Your task to perform on an android device: change the clock display to digital Image 0: 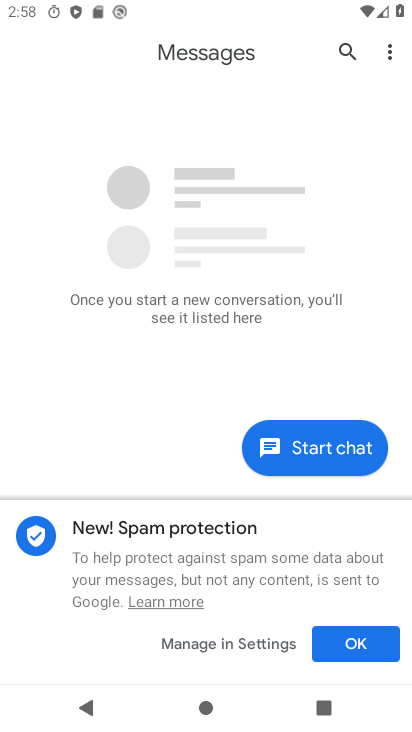
Step 0: press home button
Your task to perform on an android device: change the clock display to digital Image 1: 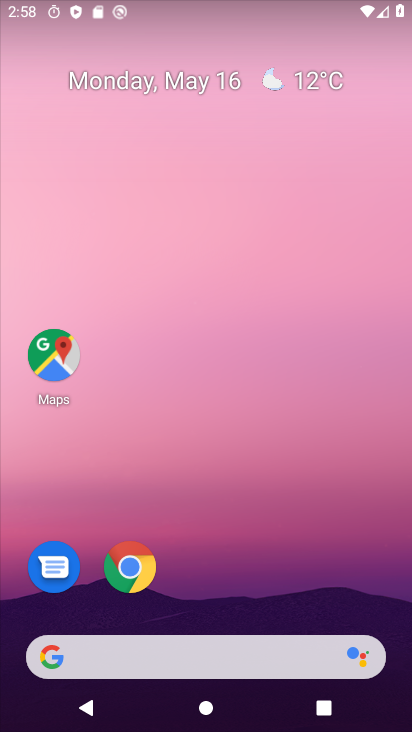
Step 1: drag from (208, 631) to (275, 102)
Your task to perform on an android device: change the clock display to digital Image 2: 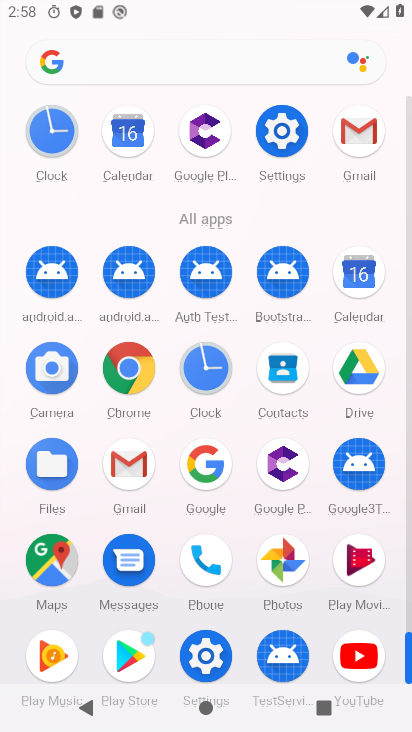
Step 2: click (204, 380)
Your task to perform on an android device: change the clock display to digital Image 3: 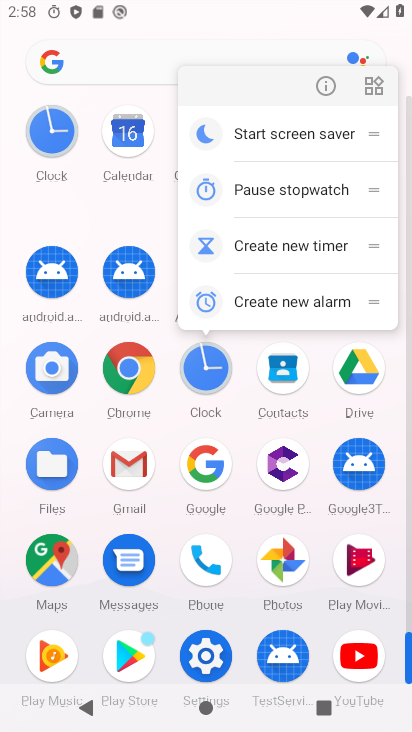
Step 3: click (204, 378)
Your task to perform on an android device: change the clock display to digital Image 4: 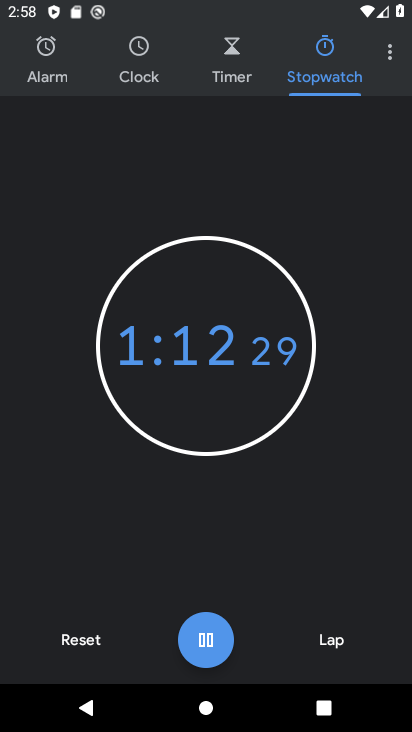
Step 4: click (380, 41)
Your task to perform on an android device: change the clock display to digital Image 5: 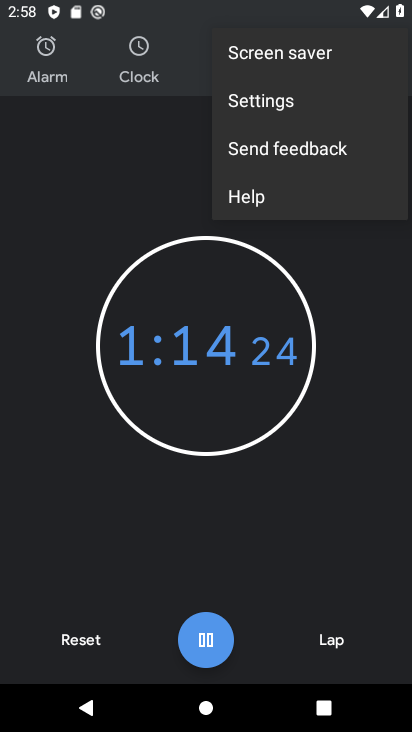
Step 5: click (346, 119)
Your task to perform on an android device: change the clock display to digital Image 6: 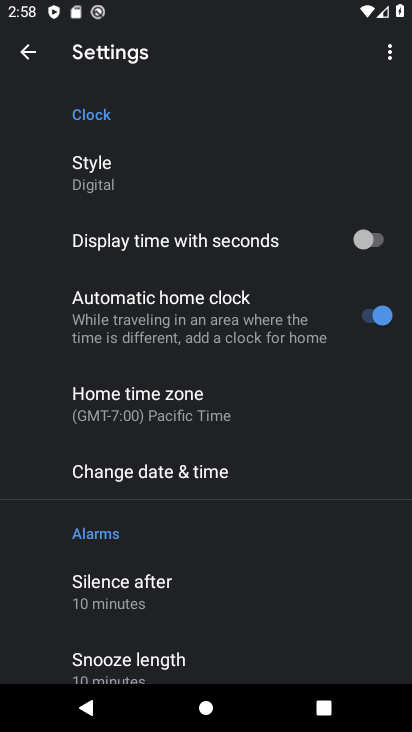
Step 6: task complete